Your task to perform on an android device: check battery use Image 0: 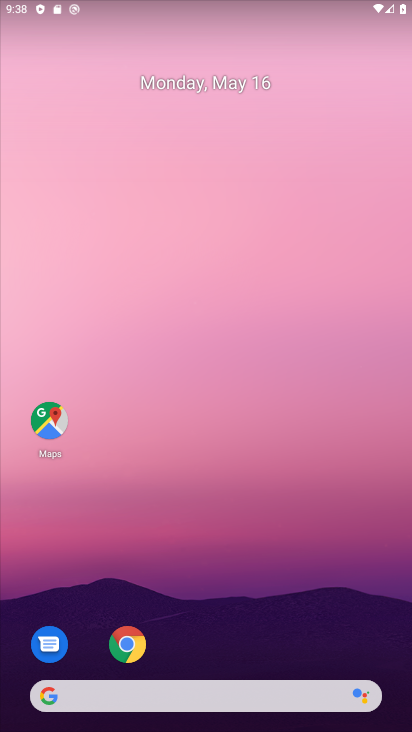
Step 0: press home button
Your task to perform on an android device: check battery use Image 1: 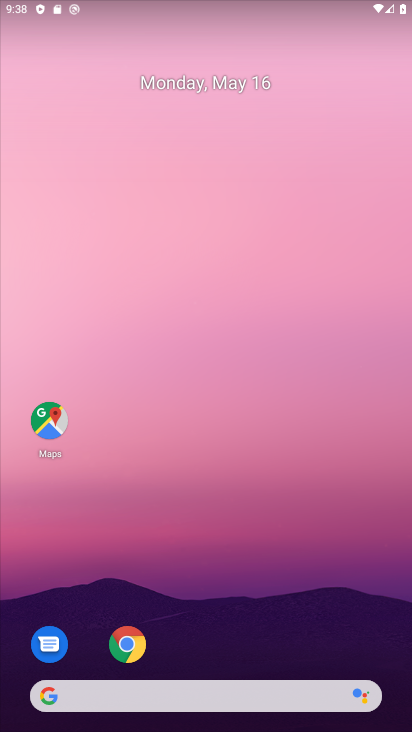
Step 1: drag from (64, 455) to (229, 84)
Your task to perform on an android device: check battery use Image 2: 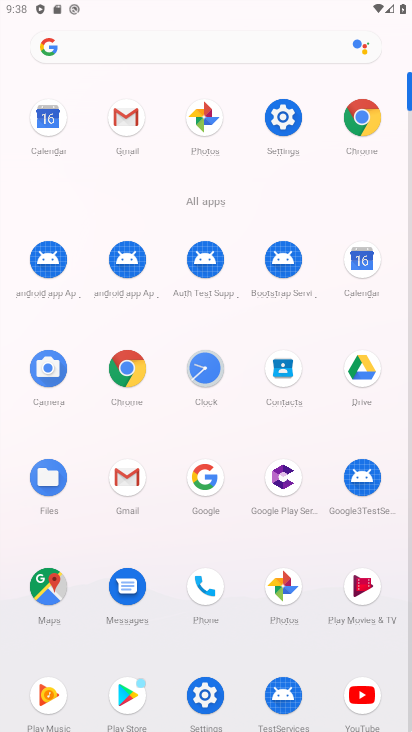
Step 2: click (282, 114)
Your task to perform on an android device: check battery use Image 3: 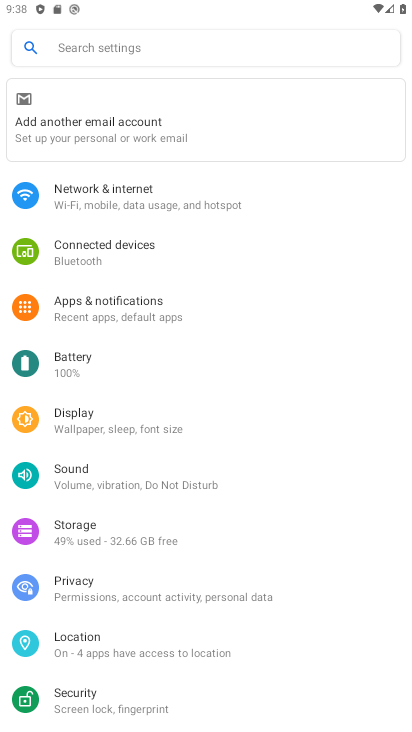
Step 3: click (47, 356)
Your task to perform on an android device: check battery use Image 4: 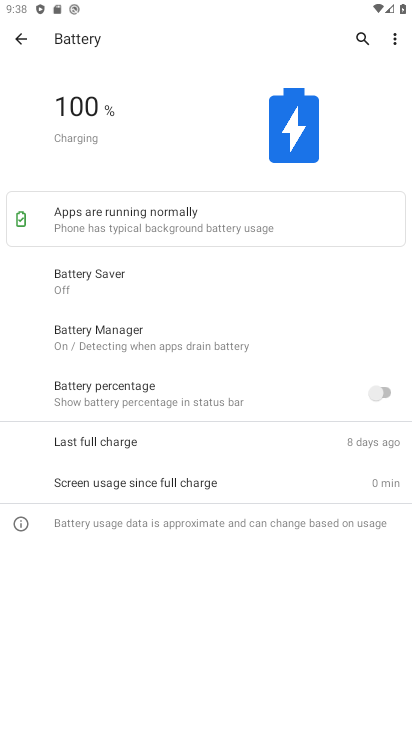
Step 4: task complete